Your task to perform on an android device: check battery use Image 0: 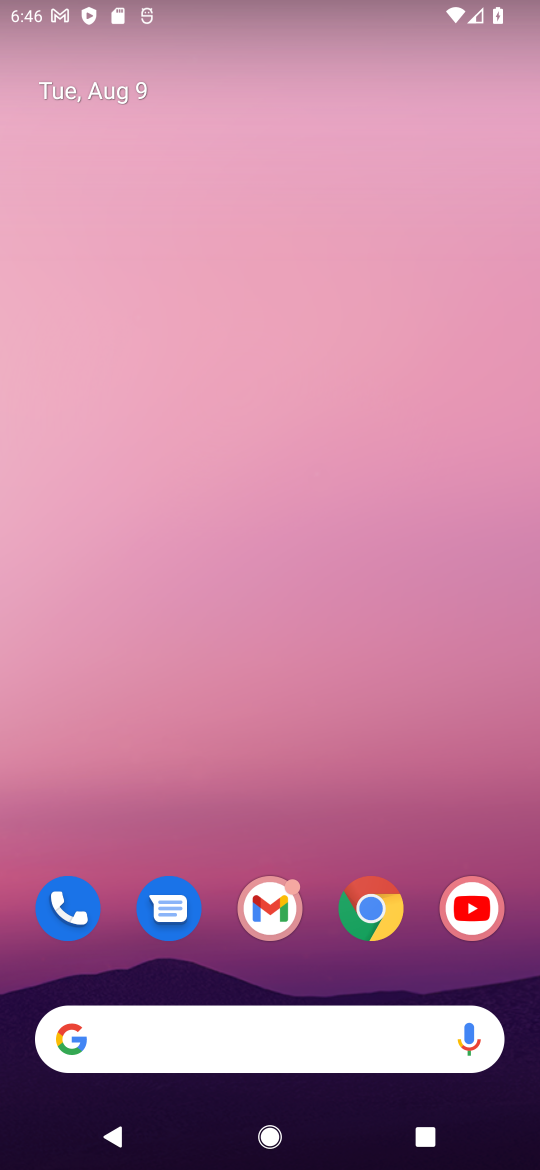
Step 0: drag from (347, 768) to (353, 92)
Your task to perform on an android device: check battery use Image 1: 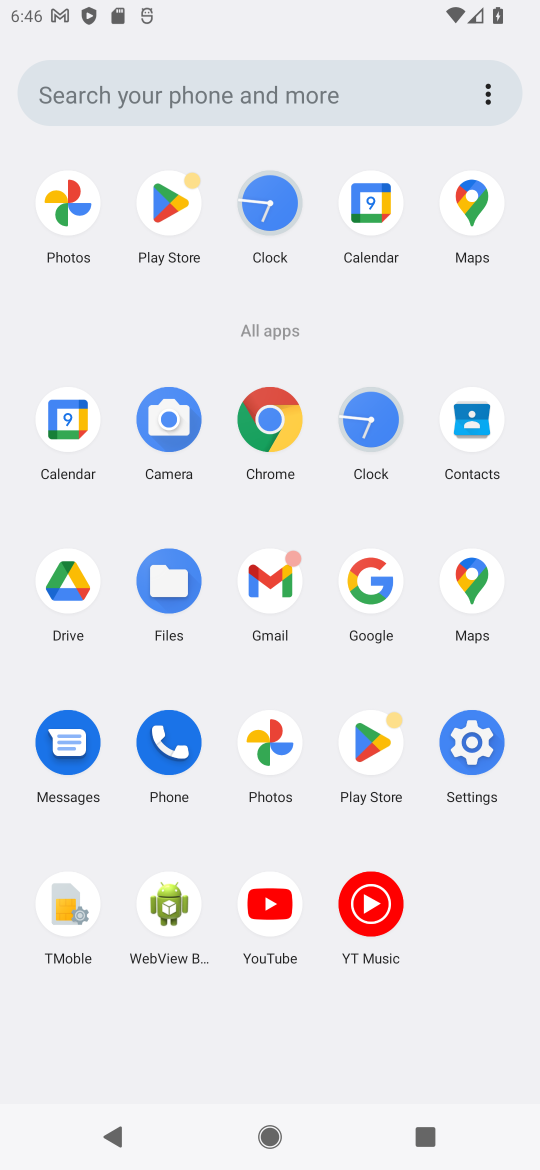
Step 1: click (478, 740)
Your task to perform on an android device: check battery use Image 2: 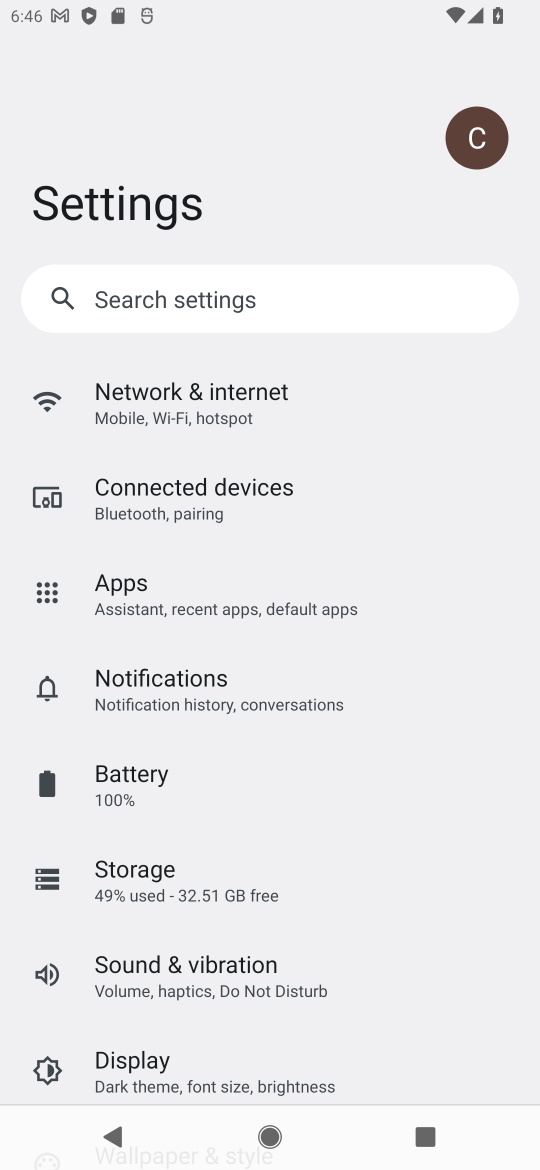
Step 2: click (114, 781)
Your task to perform on an android device: check battery use Image 3: 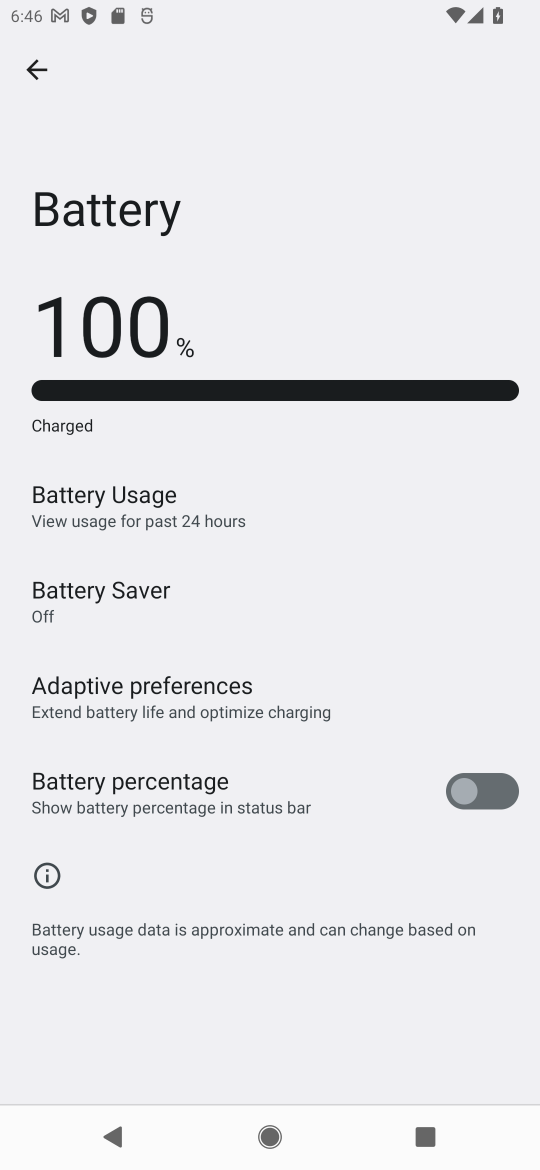
Step 3: task complete